Your task to perform on an android device: toggle javascript in the chrome app Image 0: 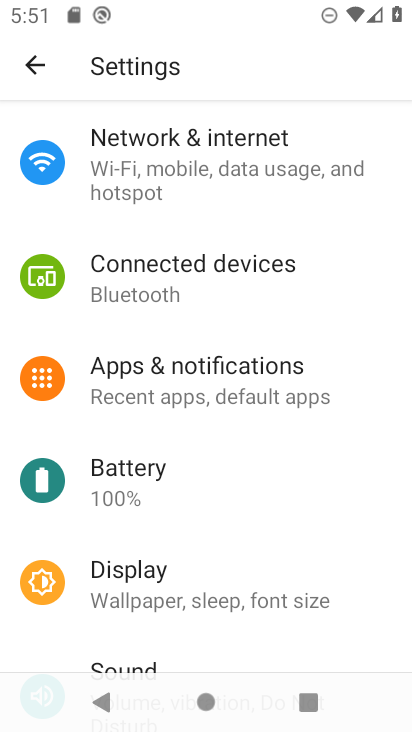
Step 0: press home button
Your task to perform on an android device: toggle javascript in the chrome app Image 1: 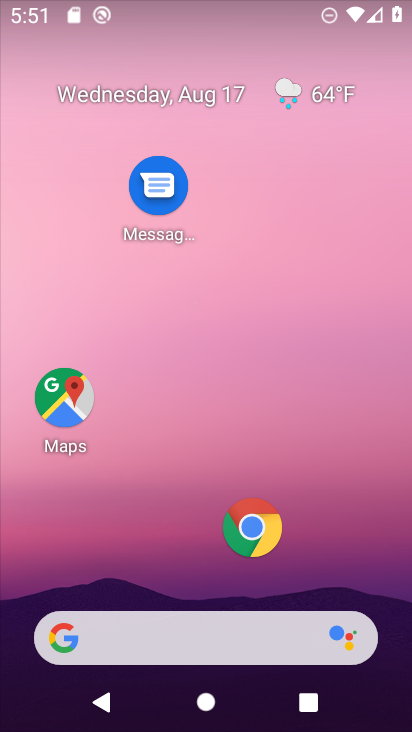
Step 1: click (235, 534)
Your task to perform on an android device: toggle javascript in the chrome app Image 2: 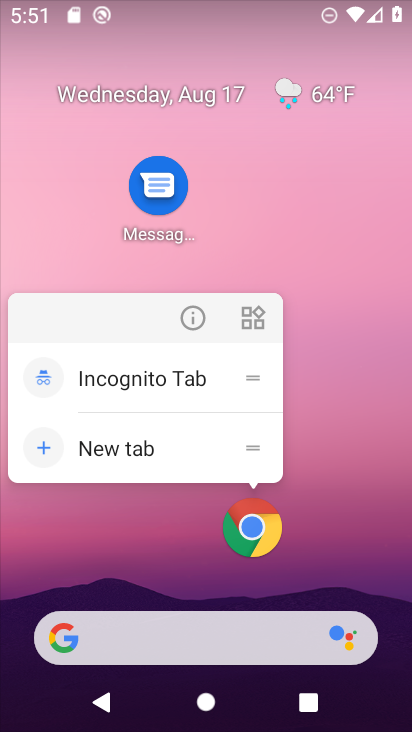
Step 2: click (244, 531)
Your task to perform on an android device: toggle javascript in the chrome app Image 3: 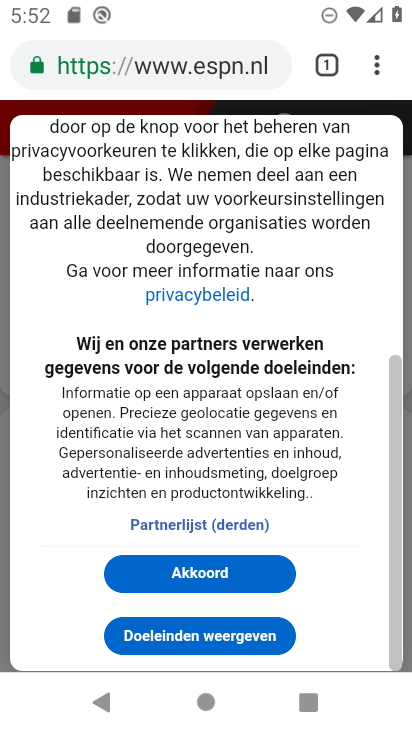
Step 3: click (369, 61)
Your task to perform on an android device: toggle javascript in the chrome app Image 4: 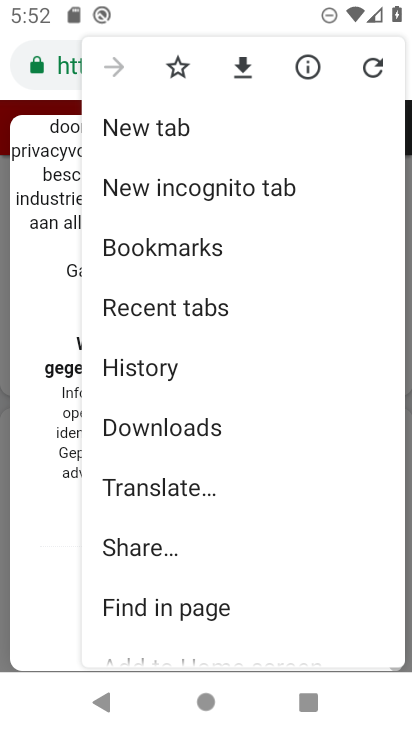
Step 4: drag from (169, 629) to (169, 263)
Your task to perform on an android device: toggle javascript in the chrome app Image 5: 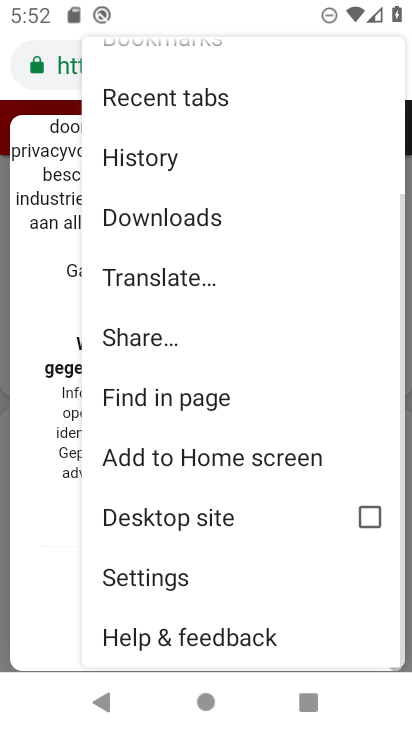
Step 5: click (150, 580)
Your task to perform on an android device: toggle javascript in the chrome app Image 6: 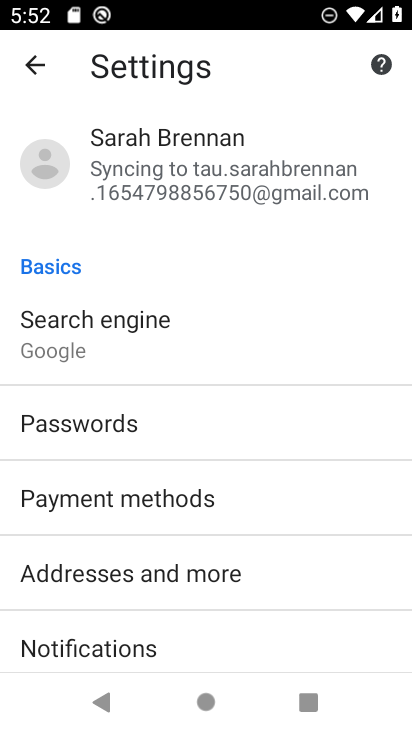
Step 6: drag from (155, 664) to (229, 151)
Your task to perform on an android device: toggle javascript in the chrome app Image 7: 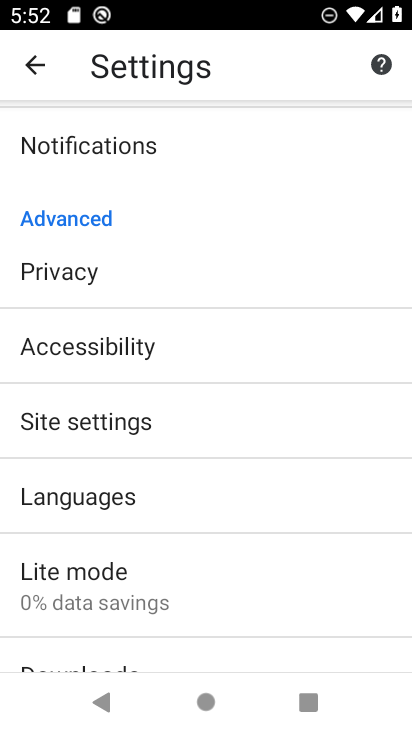
Step 7: click (112, 432)
Your task to perform on an android device: toggle javascript in the chrome app Image 8: 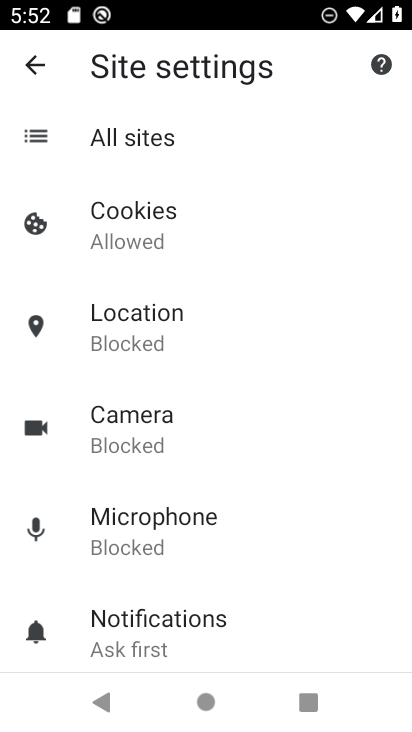
Step 8: drag from (159, 626) to (183, 223)
Your task to perform on an android device: toggle javascript in the chrome app Image 9: 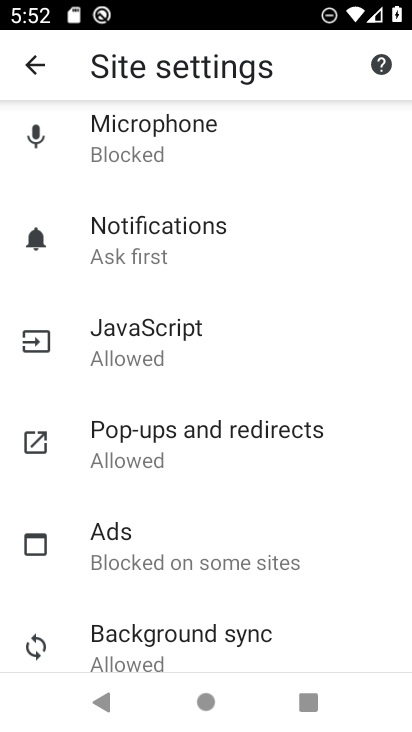
Step 9: click (155, 334)
Your task to perform on an android device: toggle javascript in the chrome app Image 10: 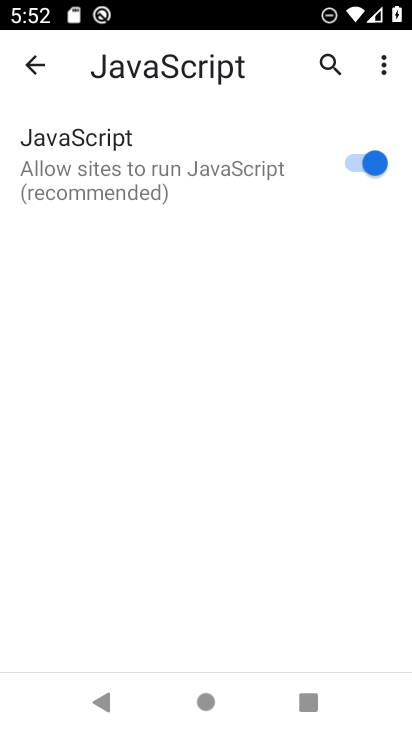
Step 10: click (368, 162)
Your task to perform on an android device: toggle javascript in the chrome app Image 11: 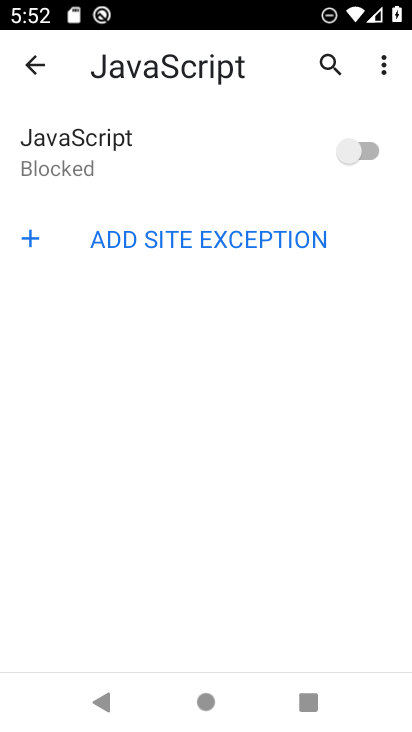
Step 11: task complete